Your task to perform on an android device: Go to Android settings Image 0: 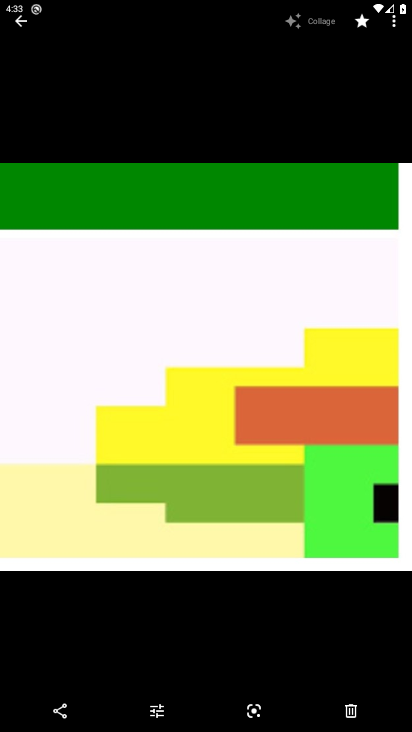
Step 0: press home button
Your task to perform on an android device: Go to Android settings Image 1: 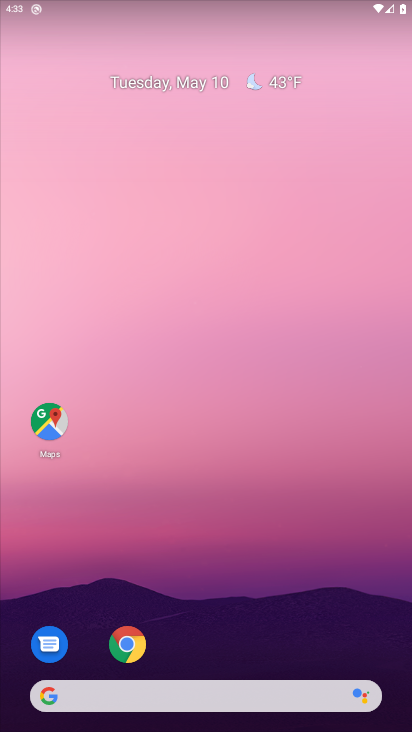
Step 1: click (238, 659)
Your task to perform on an android device: Go to Android settings Image 2: 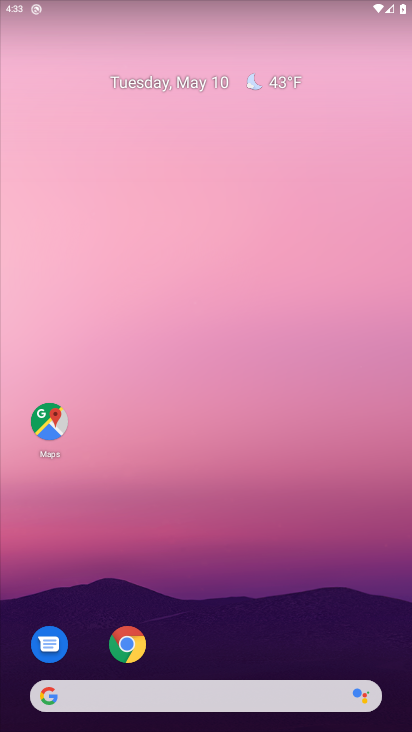
Step 2: drag from (238, 680) to (253, 339)
Your task to perform on an android device: Go to Android settings Image 3: 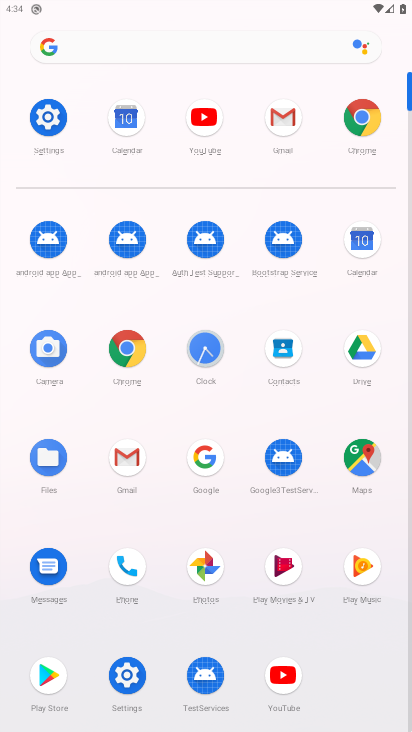
Step 3: click (51, 129)
Your task to perform on an android device: Go to Android settings Image 4: 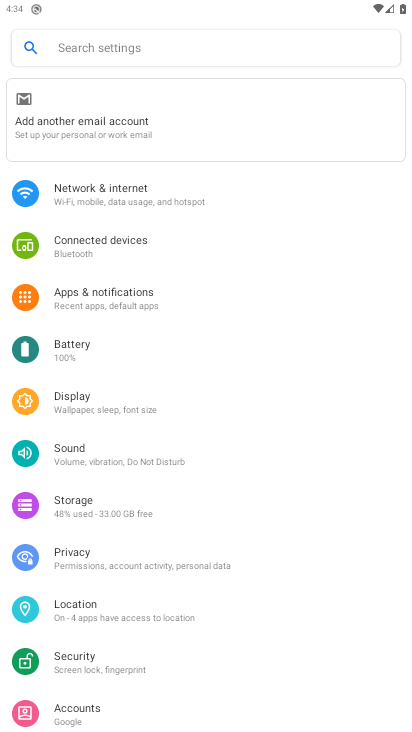
Step 4: task complete